Your task to perform on an android device: show emergency info Image 0: 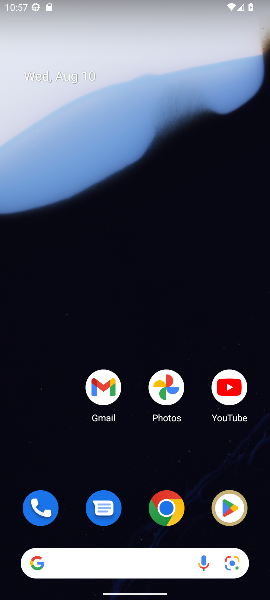
Step 0: drag from (136, 532) to (107, 36)
Your task to perform on an android device: show emergency info Image 1: 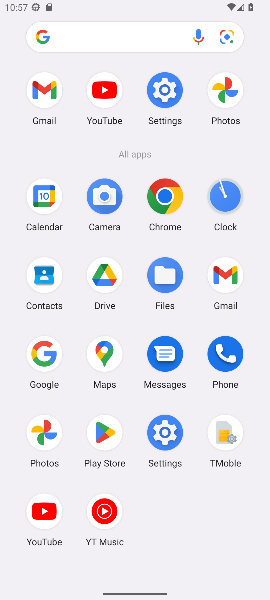
Step 1: click (155, 87)
Your task to perform on an android device: show emergency info Image 2: 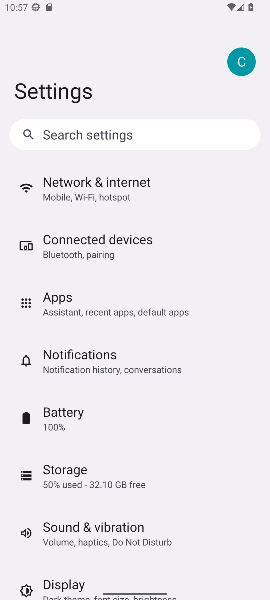
Step 2: drag from (92, 566) to (87, 122)
Your task to perform on an android device: show emergency info Image 3: 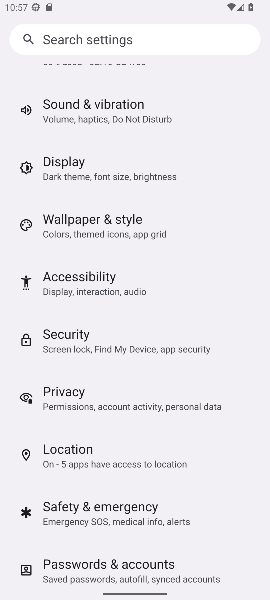
Step 3: drag from (107, 446) to (128, 216)
Your task to perform on an android device: show emergency info Image 4: 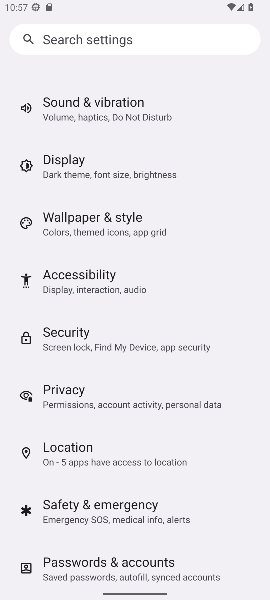
Step 4: click (121, 504)
Your task to perform on an android device: show emergency info Image 5: 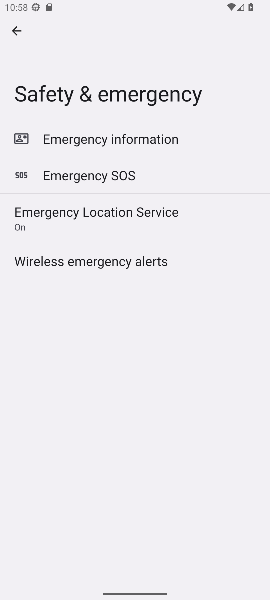
Step 5: click (91, 144)
Your task to perform on an android device: show emergency info Image 6: 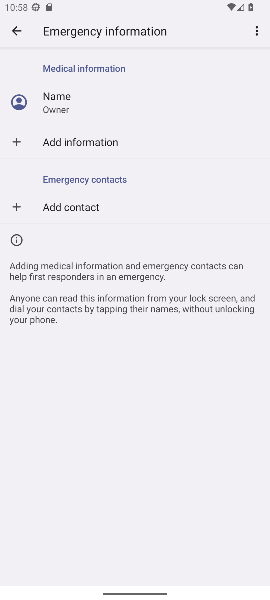
Step 6: task complete